Your task to perform on an android device: Clear the shopping cart on bestbuy.com. Search for jbl charge 4 on bestbuy.com, select the first entry, and add it to the cart. Image 0: 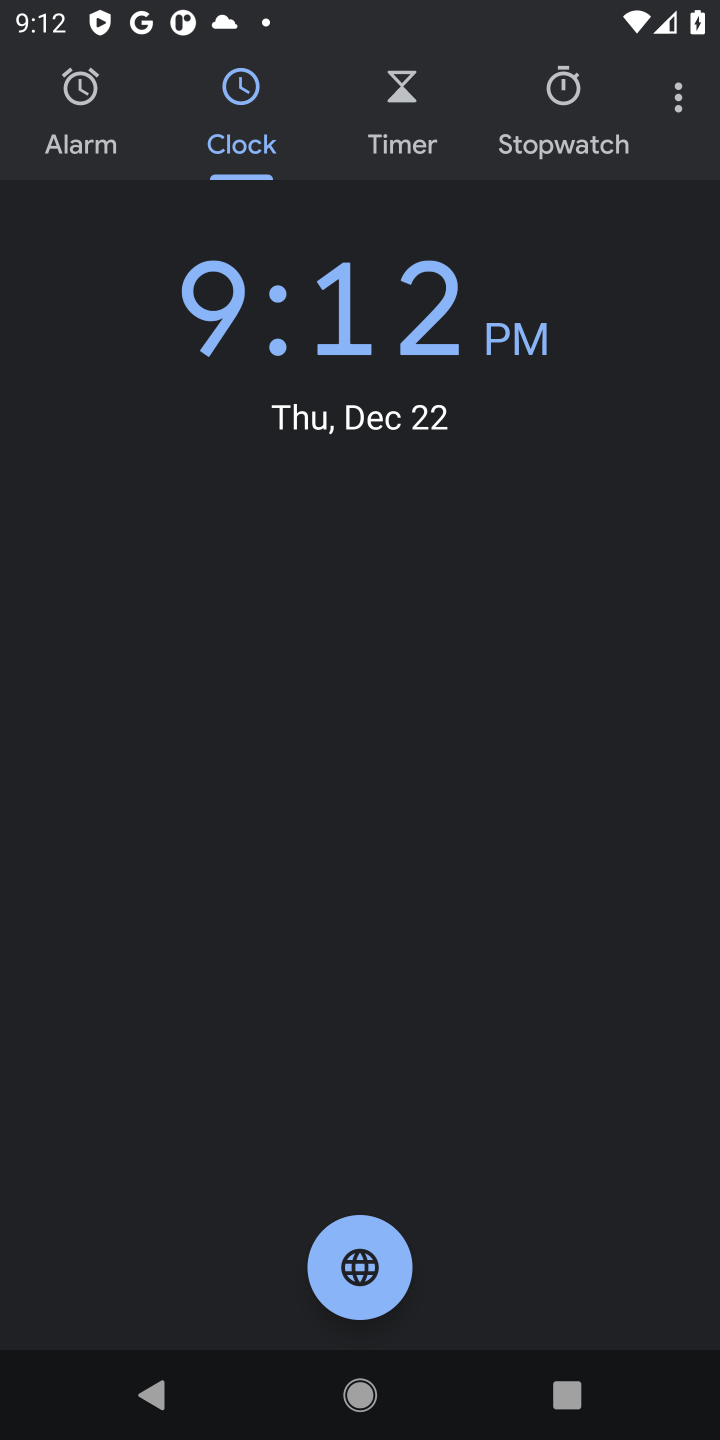
Step 0: press home button
Your task to perform on an android device: Clear the shopping cart on bestbuy.com. Search for jbl charge 4 on bestbuy.com, select the first entry, and add it to the cart. Image 1: 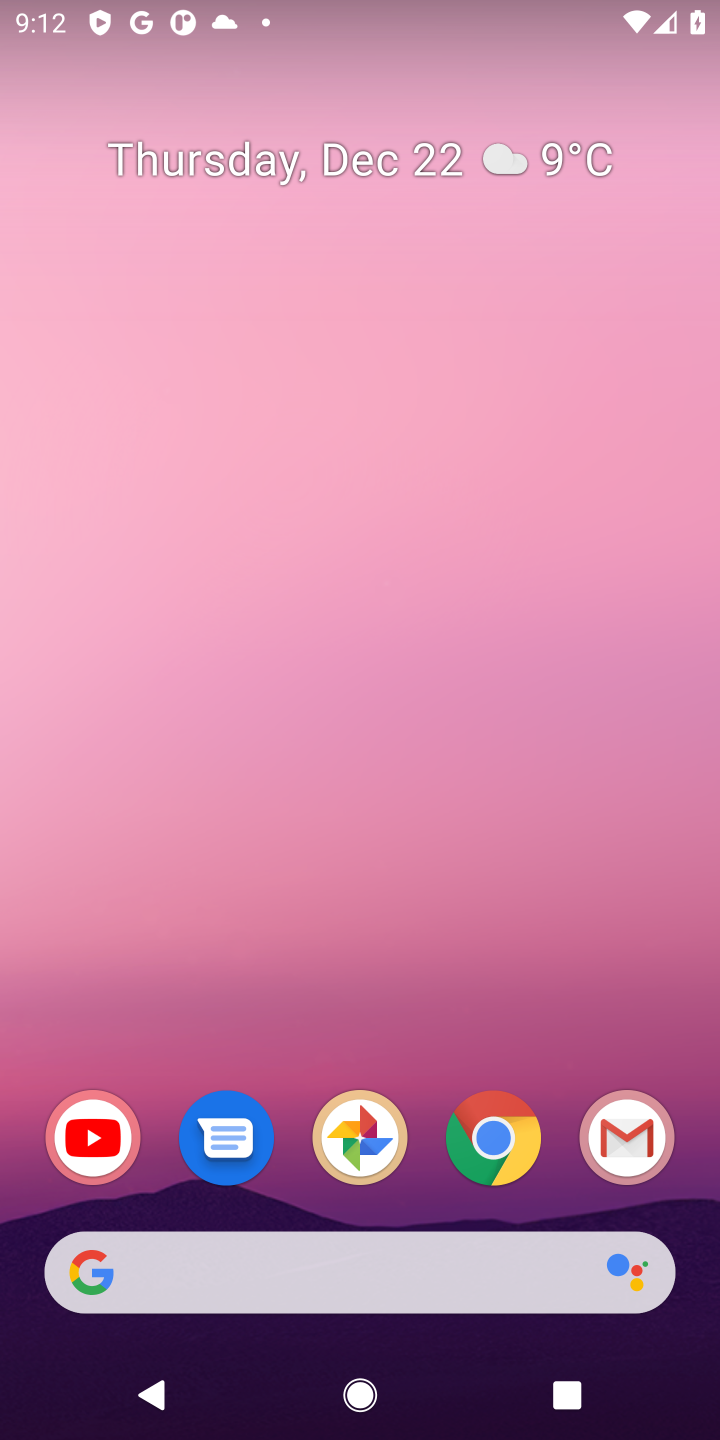
Step 1: click (480, 1153)
Your task to perform on an android device: Clear the shopping cart on bestbuy.com. Search for jbl charge 4 on bestbuy.com, select the first entry, and add it to the cart. Image 2: 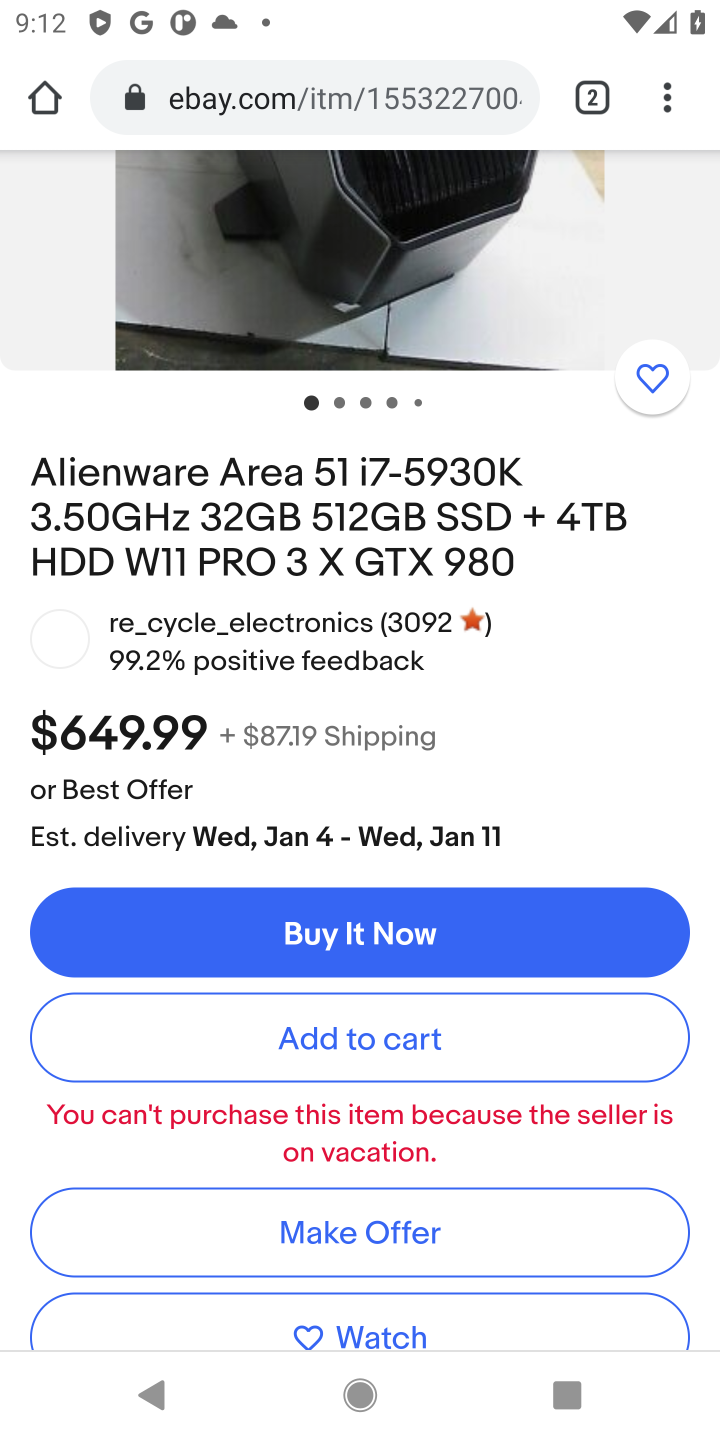
Step 2: click (224, 98)
Your task to perform on an android device: Clear the shopping cart on bestbuy.com. Search for jbl charge 4 on bestbuy.com, select the first entry, and add it to the cart. Image 3: 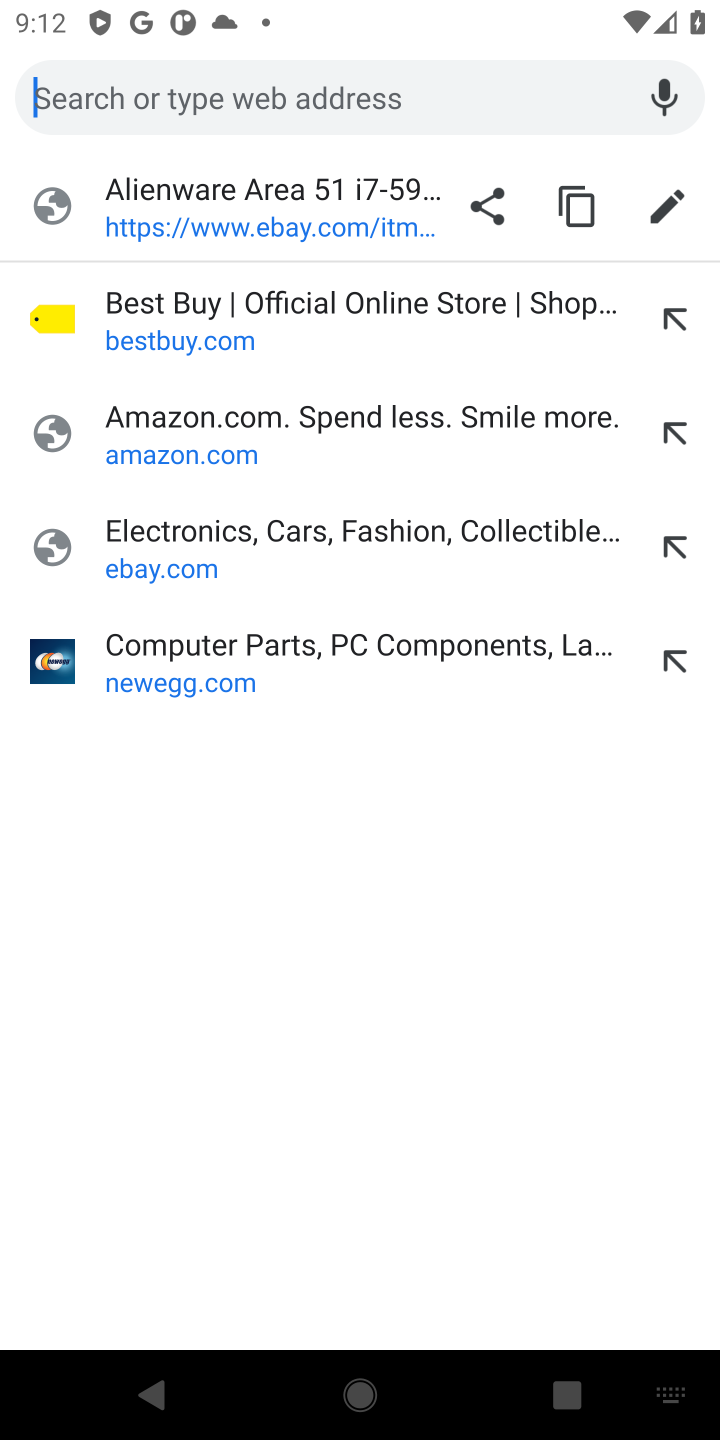
Step 3: type "bestbuy.com"
Your task to perform on an android device: Clear the shopping cart on bestbuy.com. Search for jbl charge 4 on bestbuy.com, select the first entry, and add it to the cart. Image 4: 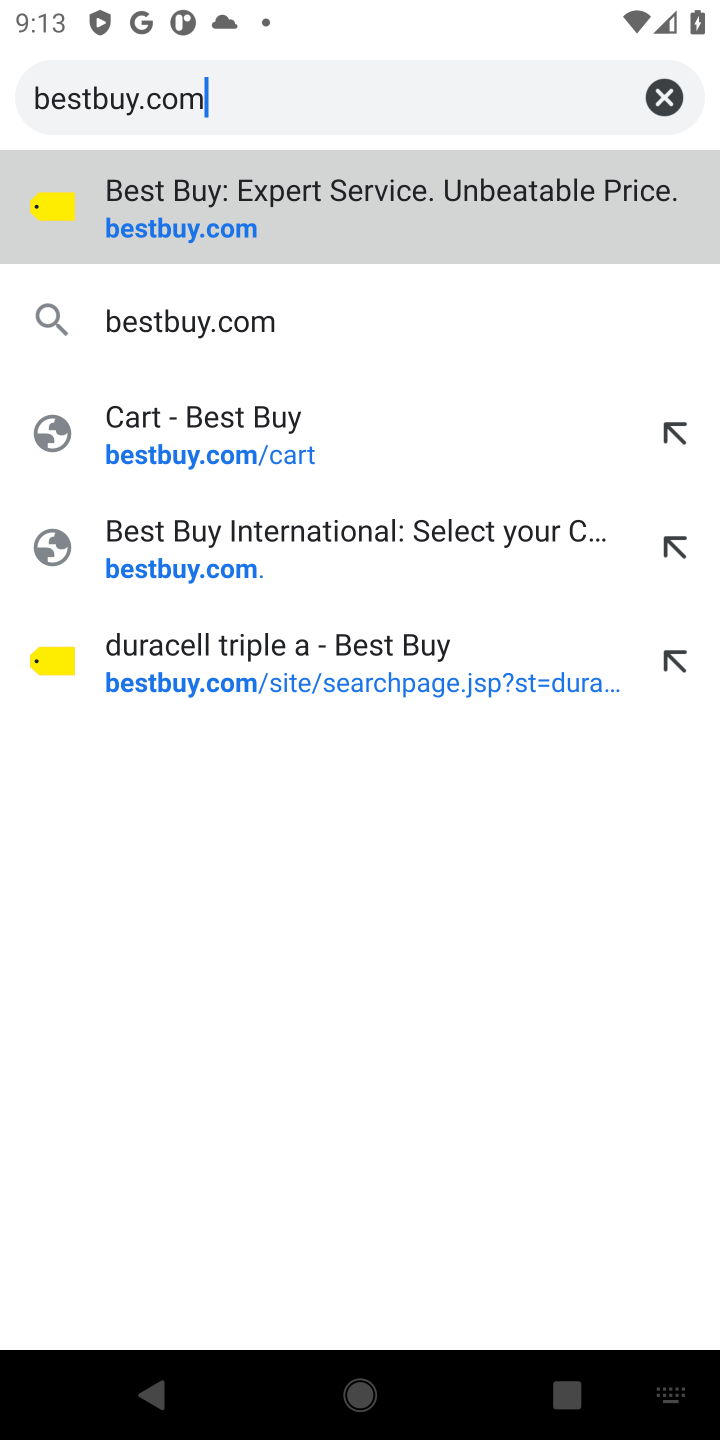
Step 4: click (398, 235)
Your task to perform on an android device: Clear the shopping cart on bestbuy.com. Search for jbl charge 4 on bestbuy.com, select the first entry, and add it to the cart. Image 5: 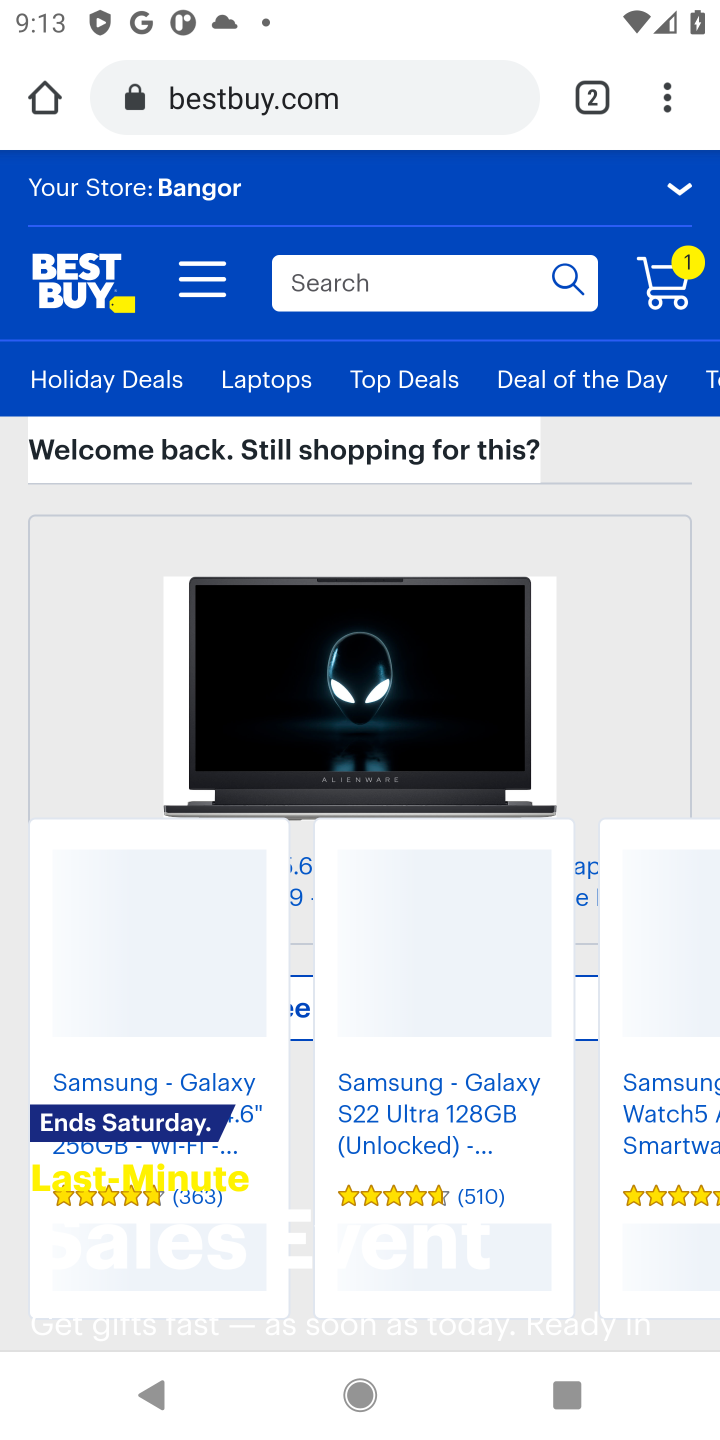
Step 5: click (651, 291)
Your task to perform on an android device: Clear the shopping cart on bestbuy.com. Search for jbl charge 4 on bestbuy.com, select the first entry, and add it to the cart. Image 6: 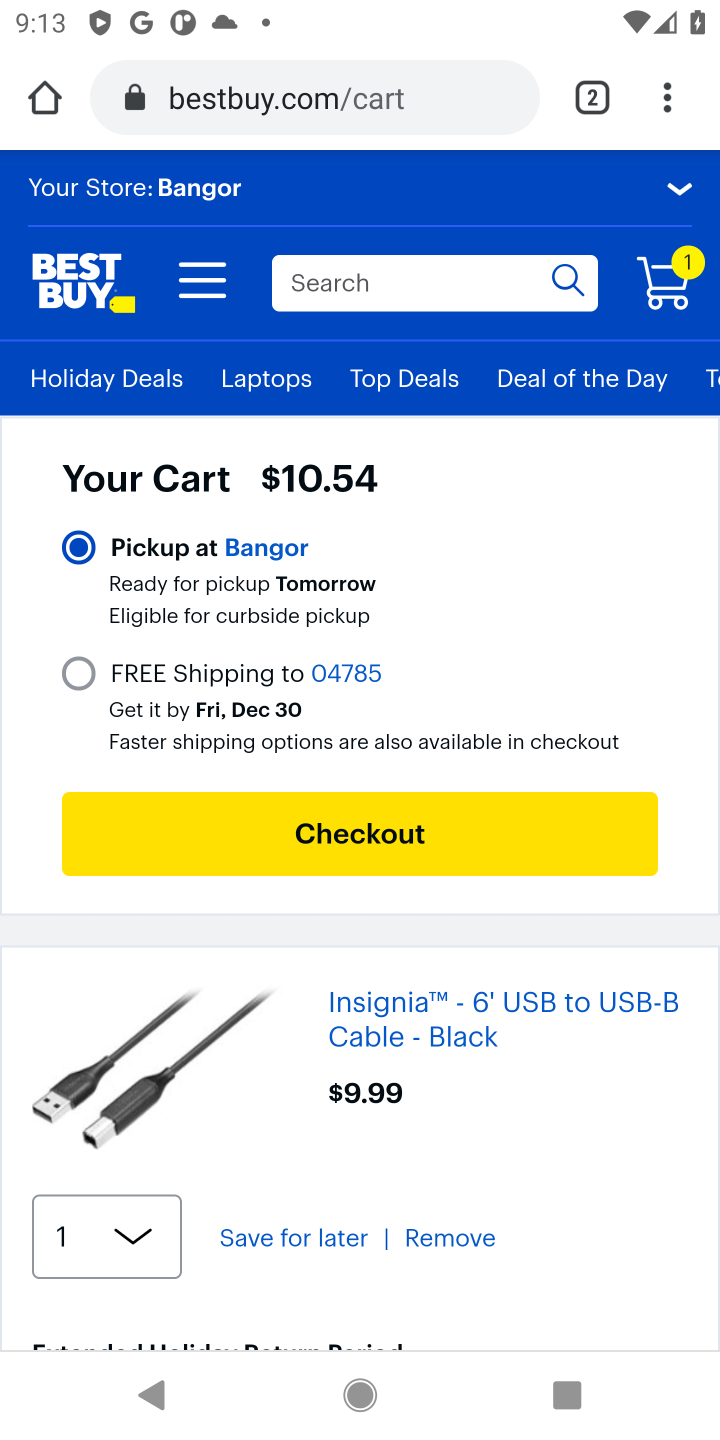
Step 6: click (455, 1239)
Your task to perform on an android device: Clear the shopping cart on bestbuy.com. Search for jbl charge 4 on bestbuy.com, select the first entry, and add it to the cart. Image 7: 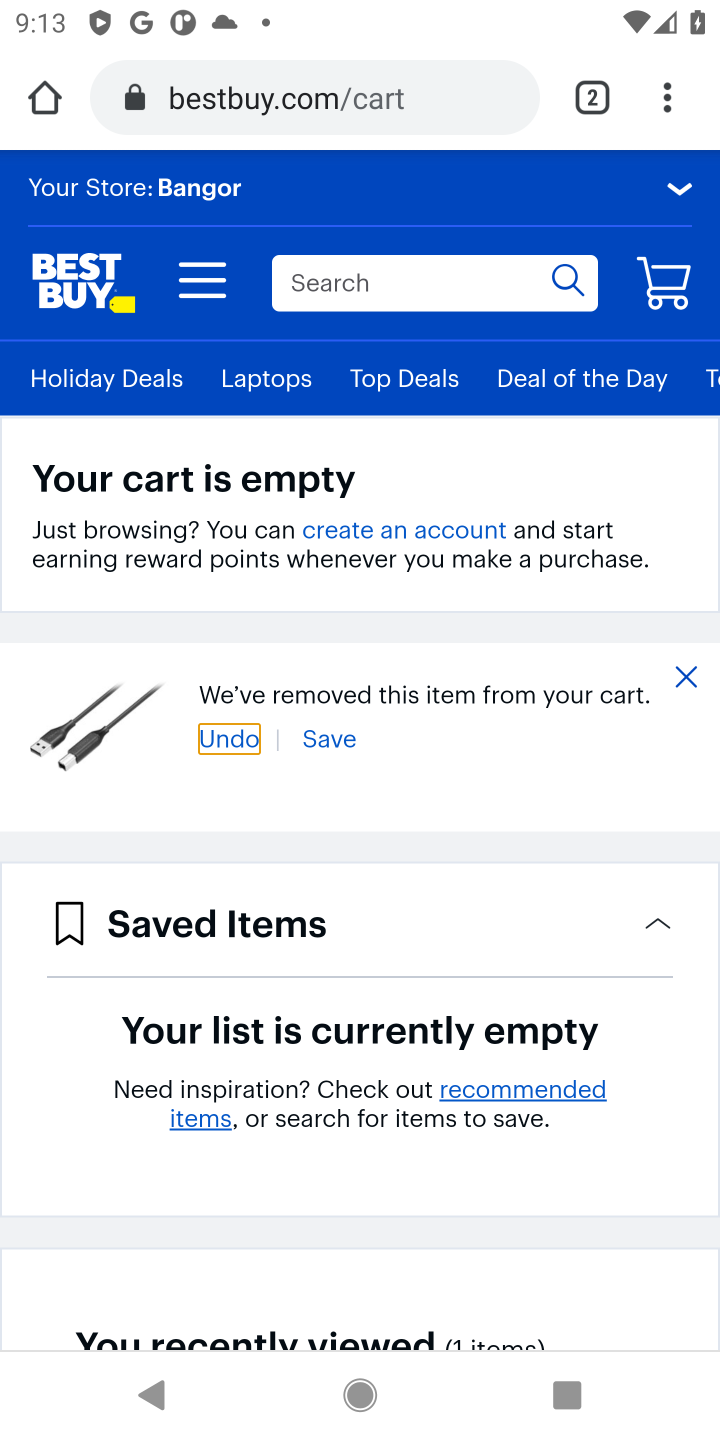
Step 7: click (504, 268)
Your task to perform on an android device: Clear the shopping cart on bestbuy.com. Search for jbl charge 4 on bestbuy.com, select the first entry, and add it to the cart. Image 8: 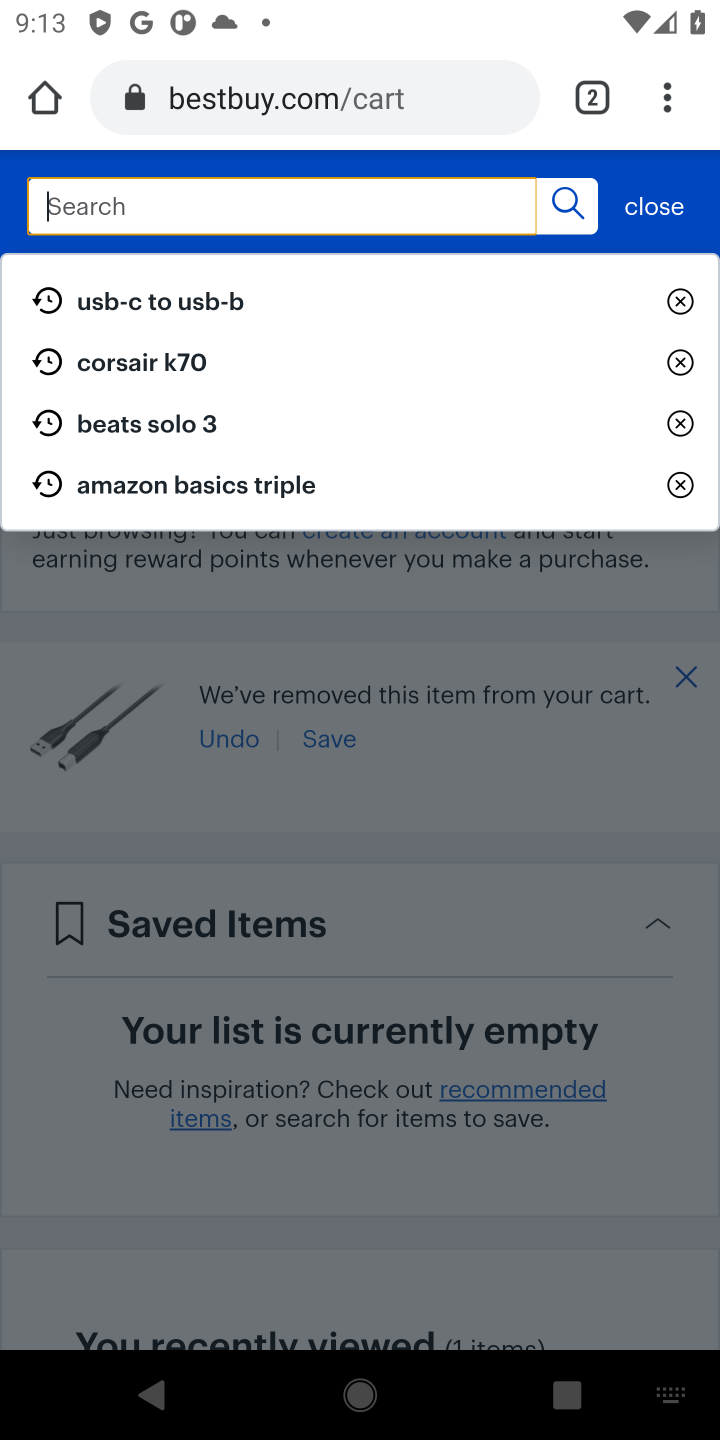
Step 8: type "jbl charge 4"
Your task to perform on an android device: Clear the shopping cart on bestbuy.com. Search for jbl charge 4 on bestbuy.com, select the first entry, and add it to the cart. Image 9: 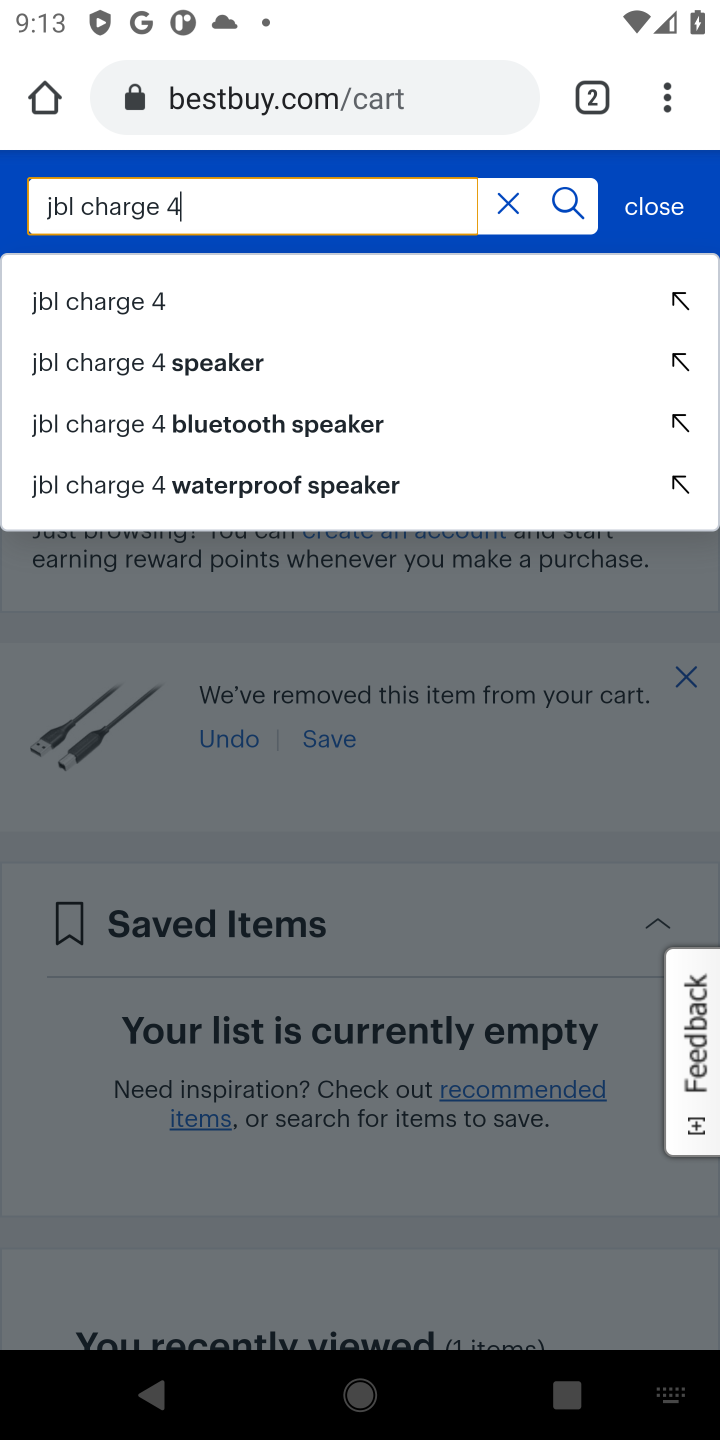
Step 9: click (567, 215)
Your task to perform on an android device: Clear the shopping cart on bestbuy.com. Search for jbl charge 4 on bestbuy.com, select the first entry, and add it to the cart. Image 10: 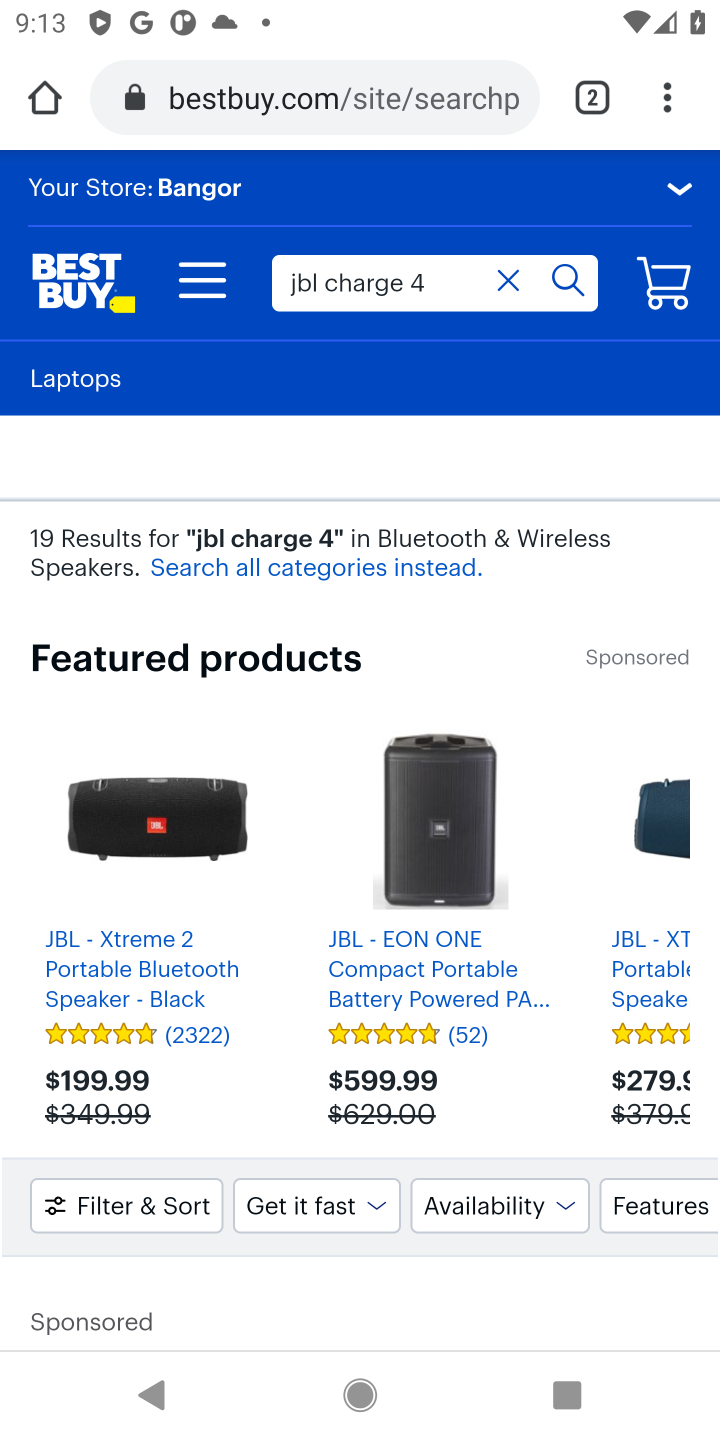
Step 10: task complete